Your task to perform on an android device: change your default location settings in chrome Image 0: 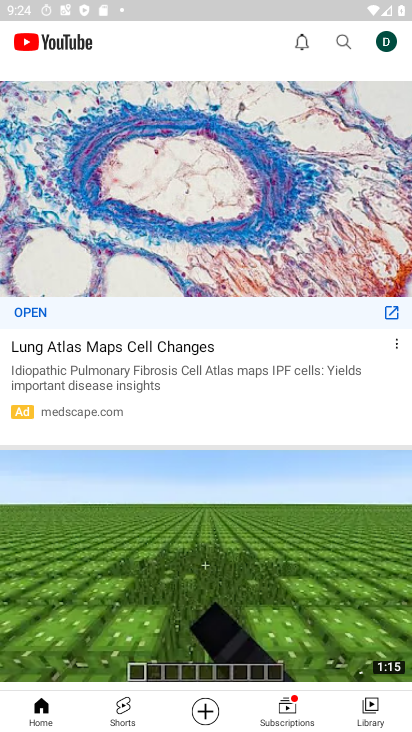
Step 0: drag from (187, 472) to (198, 135)
Your task to perform on an android device: change your default location settings in chrome Image 1: 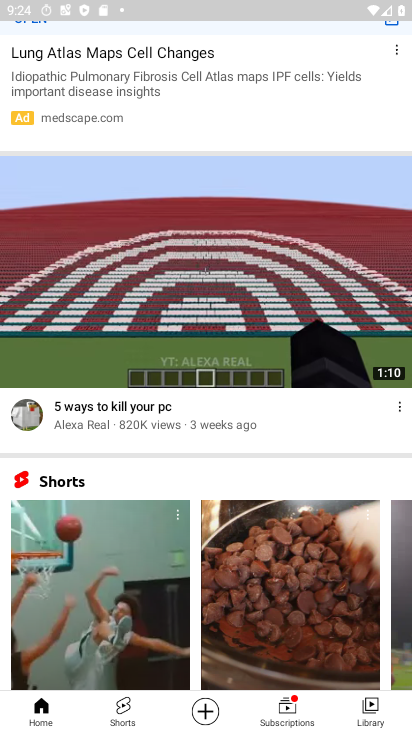
Step 1: press home button
Your task to perform on an android device: change your default location settings in chrome Image 2: 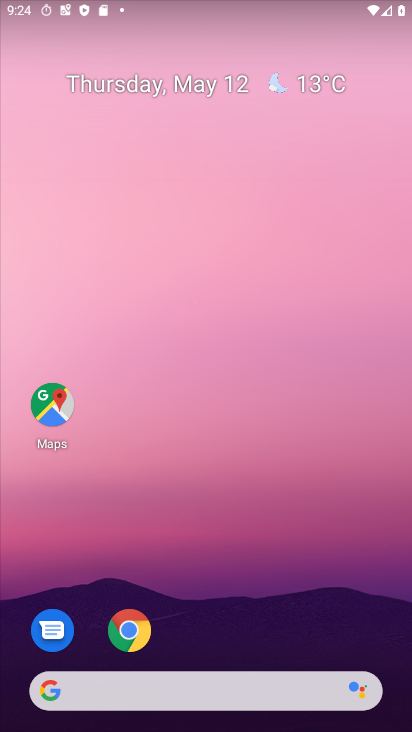
Step 2: click (136, 628)
Your task to perform on an android device: change your default location settings in chrome Image 3: 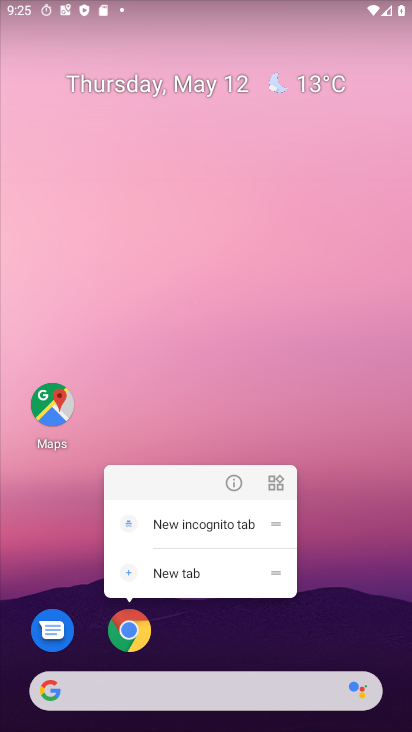
Step 3: click (148, 629)
Your task to perform on an android device: change your default location settings in chrome Image 4: 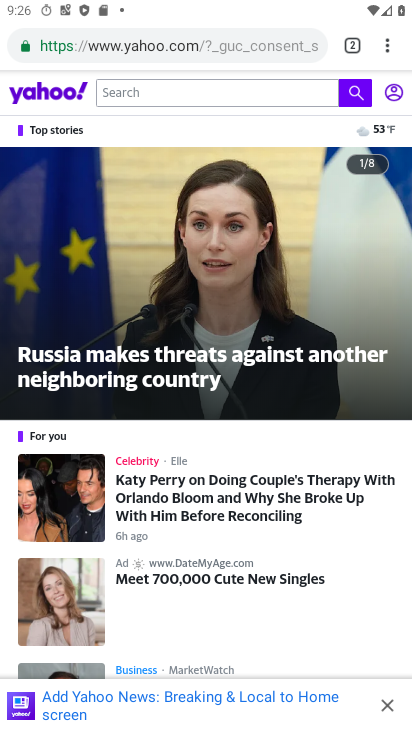
Step 4: click (381, 53)
Your task to perform on an android device: change your default location settings in chrome Image 5: 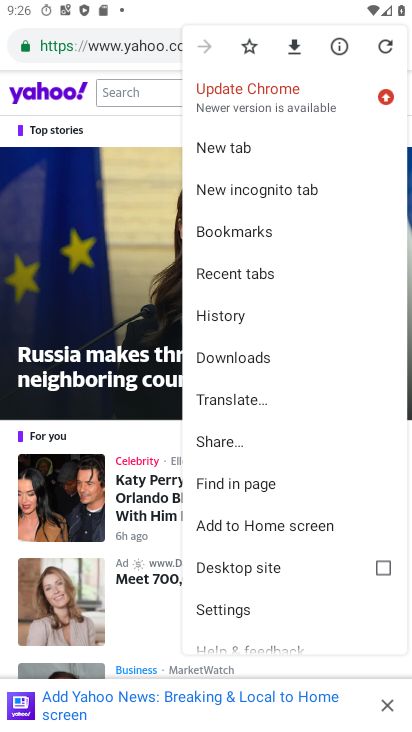
Step 5: click (259, 601)
Your task to perform on an android device: change your default location settings in chrome Image 6: 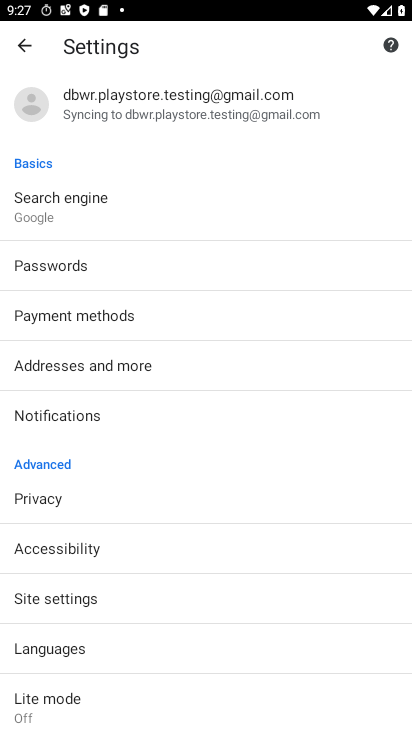
Step 6: click (111, 594)
Your task to perform on an android device: change your default location settings in chrome Image 7: 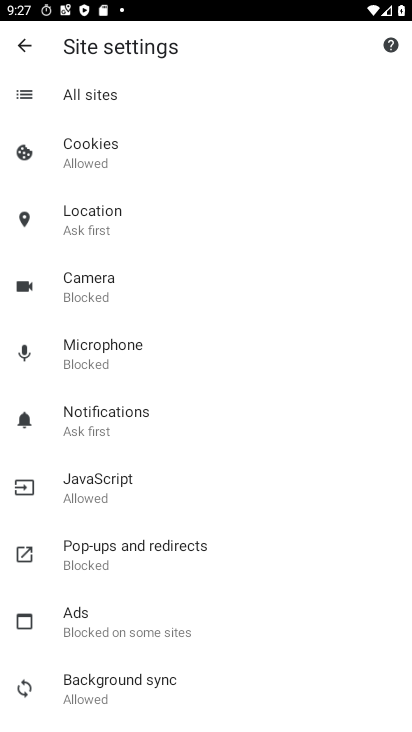
Step 7: click (141, 209)
Your task to perform on an android device: change your default location settings in chrome Image 8: 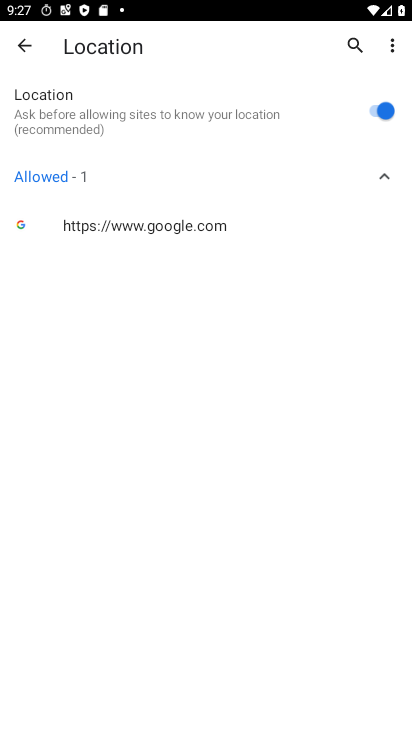
Step 8: click (373, 112)
Your task to perform on an android device: change your default location settings in chrome Image 9: 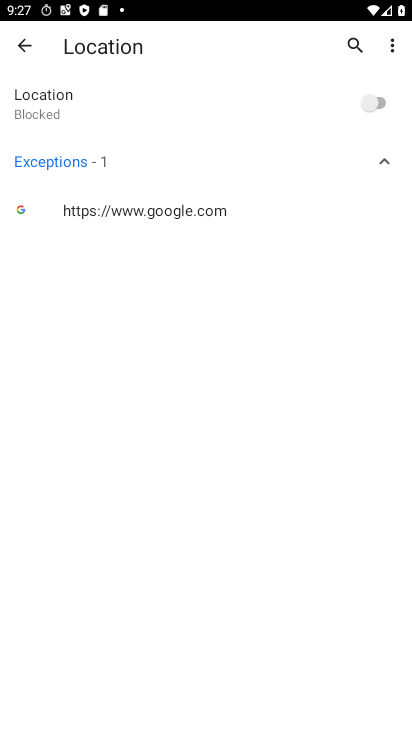
Step 9: task complete